Your task to perform on an android device: open the mobile data screen to see how much data has been used Image 0: 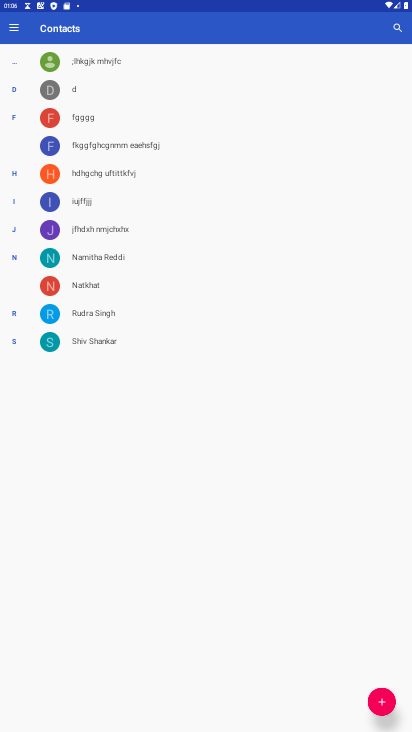
Step 0: press home button
Your task to perform on an android device: open the mobile data screen to see how much data has been used Image 1: 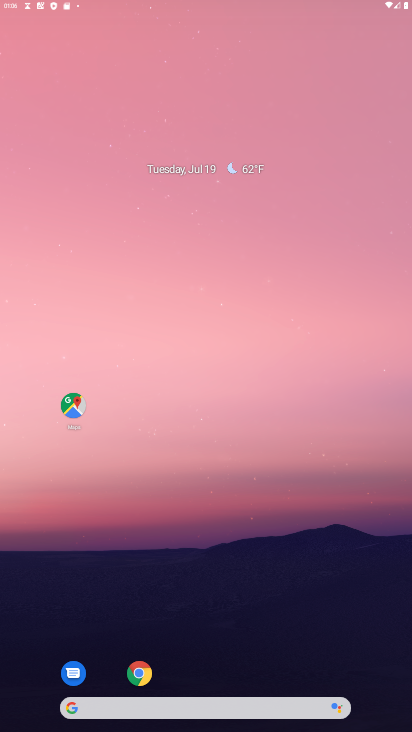
Step 1: click (309, 289)
Your task to perform on an android device: open the mobile data screen to see how much data has been used Image 2: 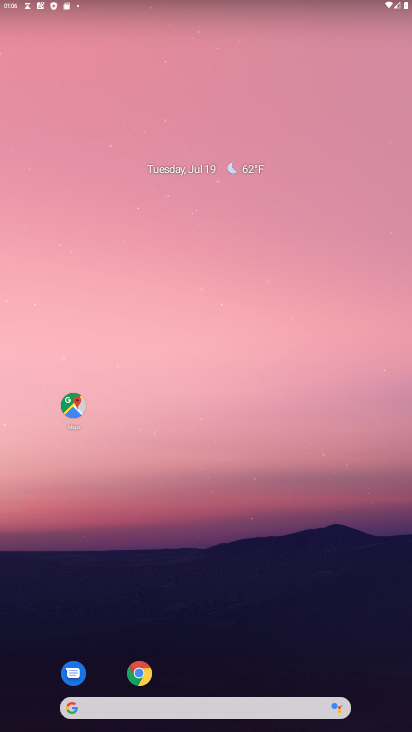
Step 2: drag from (266, 624) to (291, 277)
Your task to perform on an android device: open the mobile data screen to see how much data has been used Image 3: 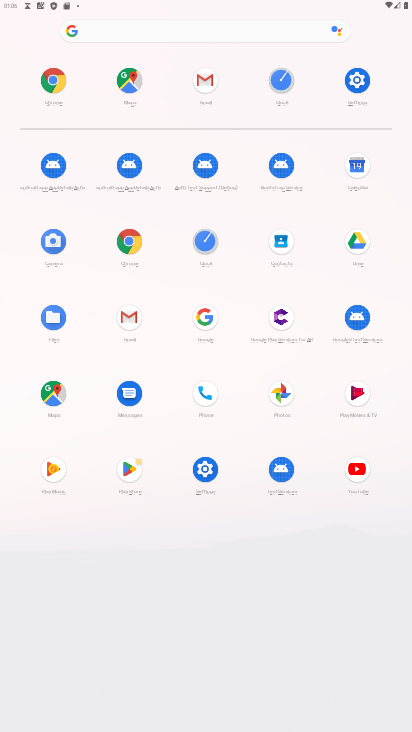
Step 3: click (349, 68)
Your task to perform on an android device: open the mobile data screen to see how much data has been used Image 4: 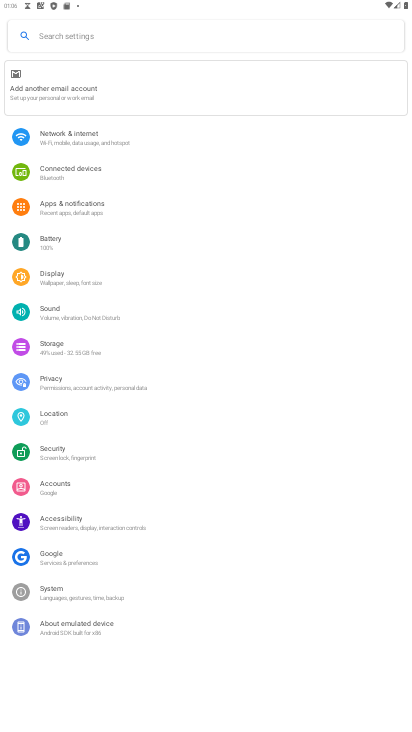
Step 4: click (78, 196)
Your task to perform on an android device: open the mobile data screen to see how much data has been used Image 5: 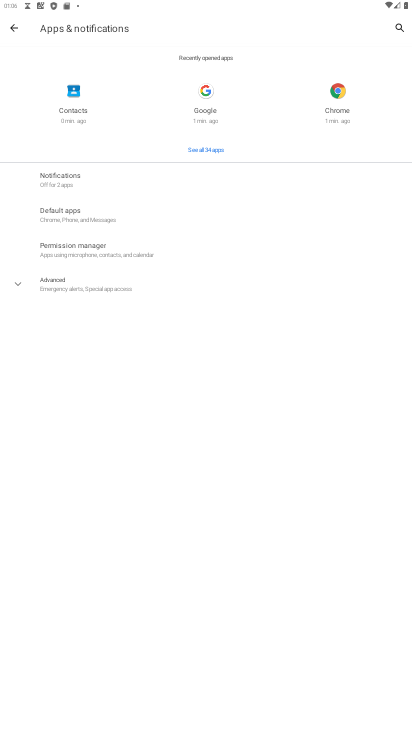
Step 5: click (9, 30)
Your task to perform on an android device: open the mobile data screen to see how much data has been used Image 6: 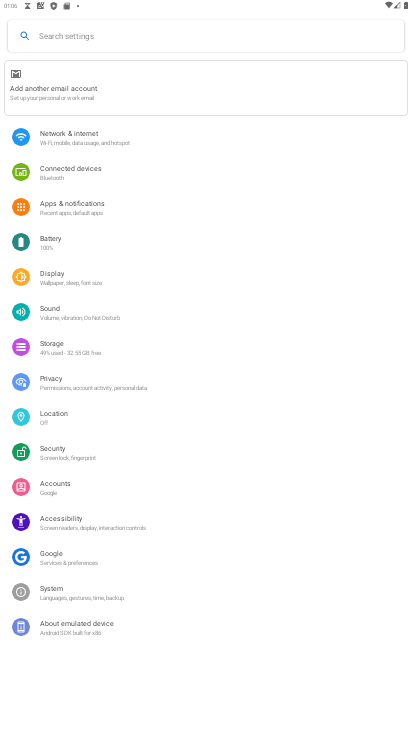
Step 6: click (92, 141)
Your task to perform on an android device: open the mobile data screen to see how much data has been used Image 7: 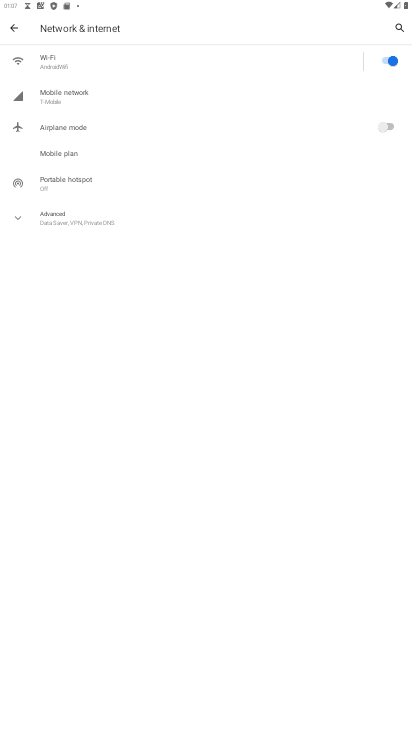
Step 7: click (94, 96)
Your task to perform on an android device: open the mobile data screen to see how much data has been used Image 8: 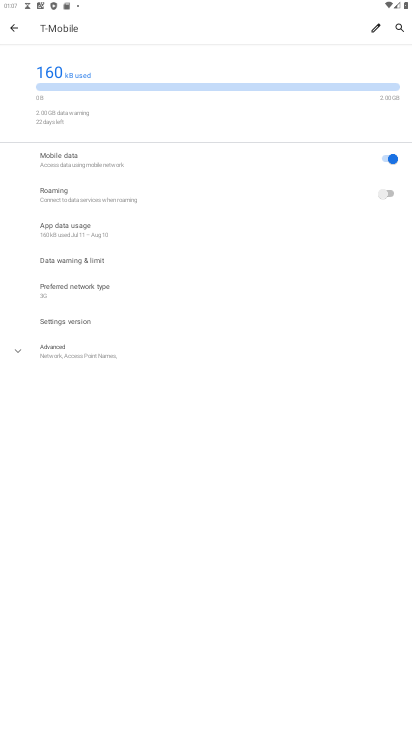
Step 8: task complete